Your task to perform on an android device: What's the weather today? Image 0: 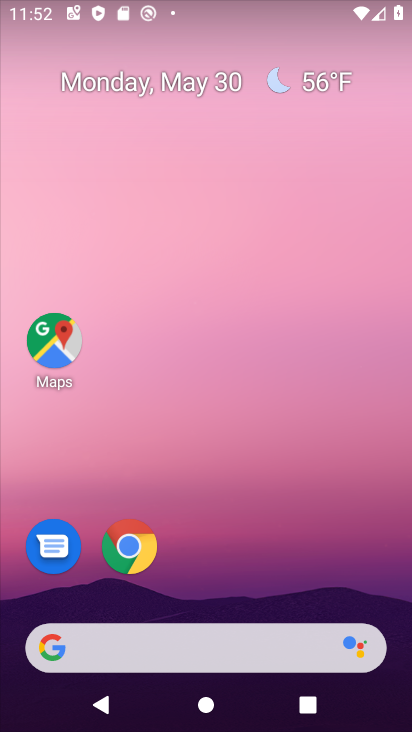
Step 0: drag from (278, 574) to (170, 159)
Your task to perform on an android device: What's the weather today? Image 1: 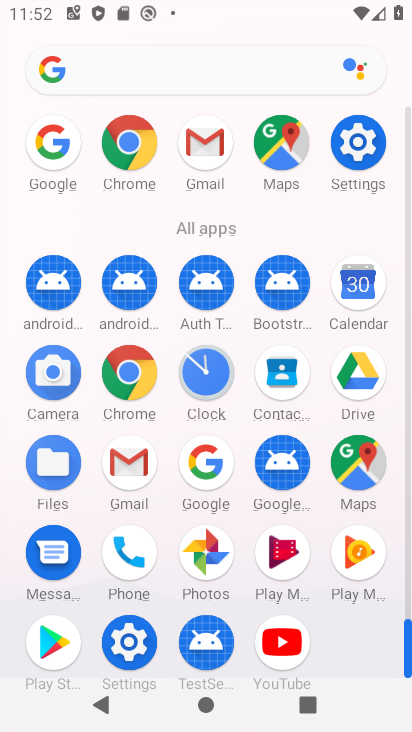
Step 1: click (49, 137)
Your task to perform on an android device: What's the weather today? Image 2: 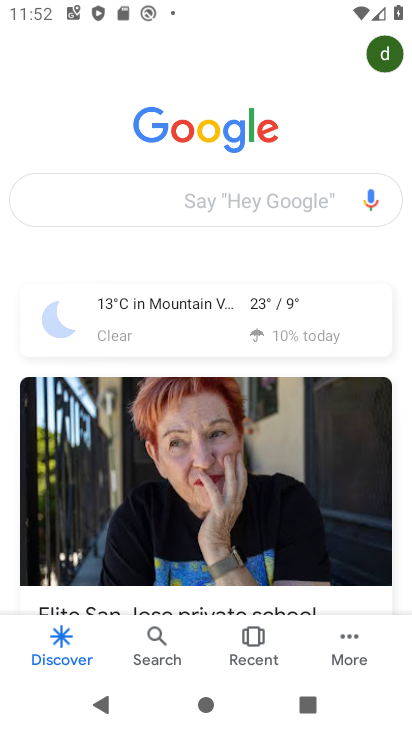
Step 2: click (118, 205)
Your task to perform on an android device: What's the weather today? Image 3: 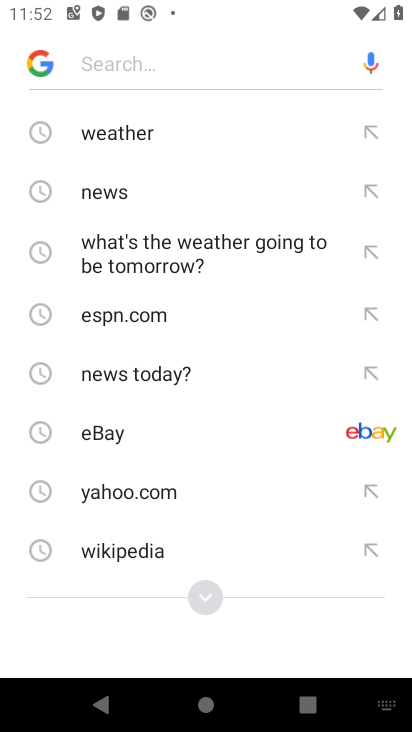
Step 3: click (134, 136)
Your task to perform on an android device: What's the weather today? Image 4: 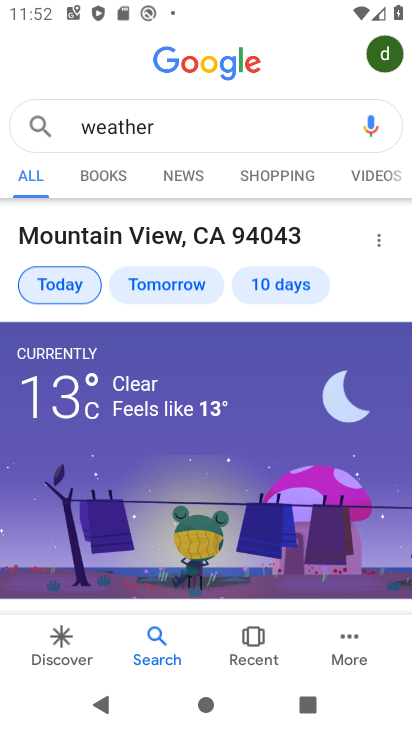
Step 4: task complete